Your task to perform on an android device: Open settings Image 0: 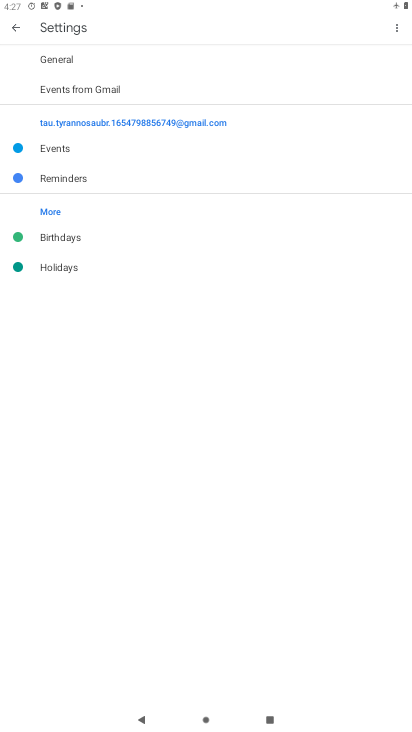
Step 0: press home button
Your task to perform on an android device: Open settings Image 1: 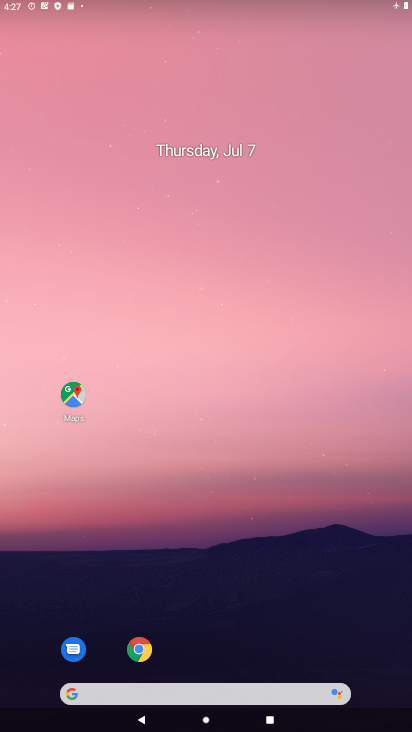
Step 1: drag from (361, 670) to (236, 92)
Your task to perform on an android device: Open settings Image 2: 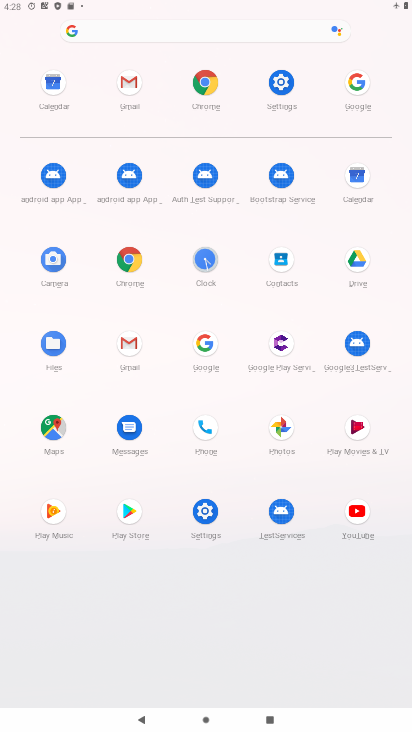
Step 2: click (276, 77)
Your task to perform on an android device: Open settings Image 3: 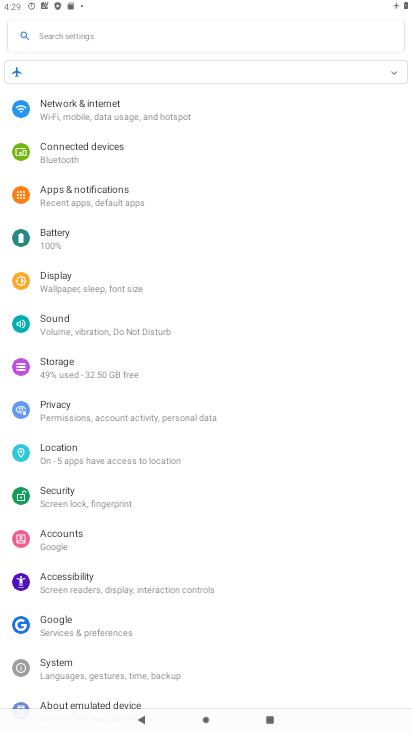
Step 3: task complete